Your task to perform on an android device: Is it going to rain this weekend? Image 0: 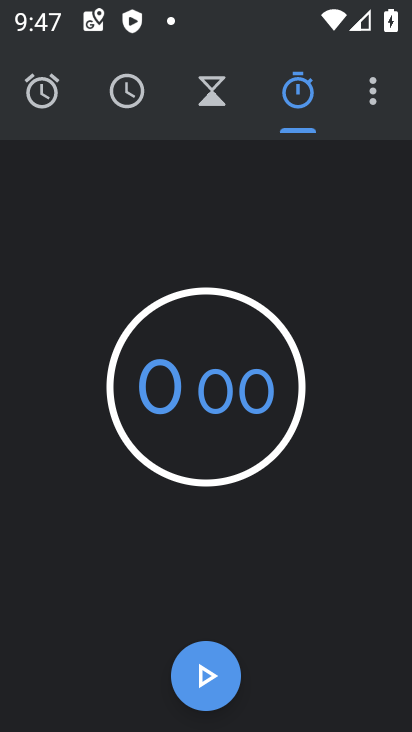
Step 0: press home button
Your task to perform on an android device: Is it going to rain this weekend? Image 1: 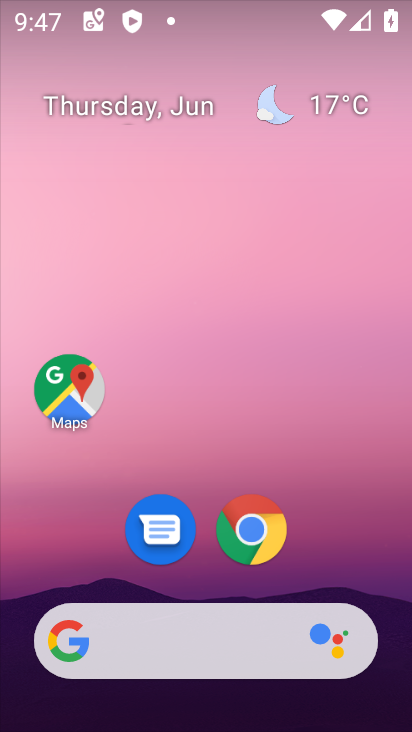
Step 1: click (325, 98)
Your task to perform on an android device: Is it going to rain this weekend? Image 2: 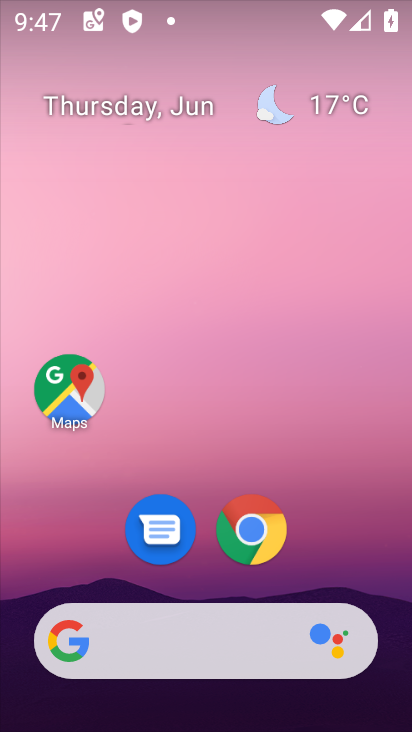
Step 2: click (329, 108)
Your task to perform on an android device: Is it going to rain this weekend? Image 3: 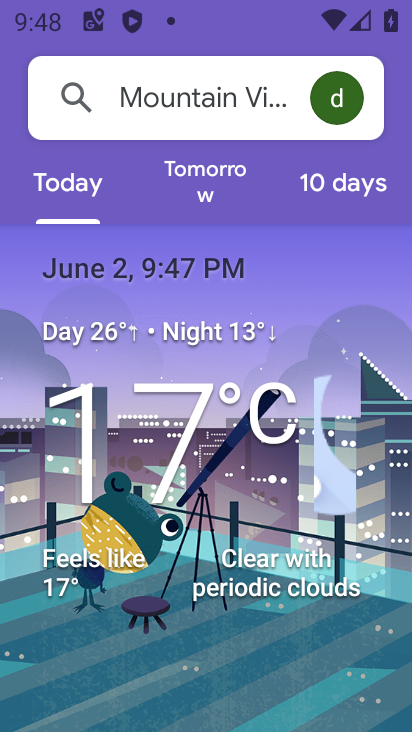
Step 3: click (346, 185)
Your task to perform on an android device: Is it going to rain this weekend? Image 4: 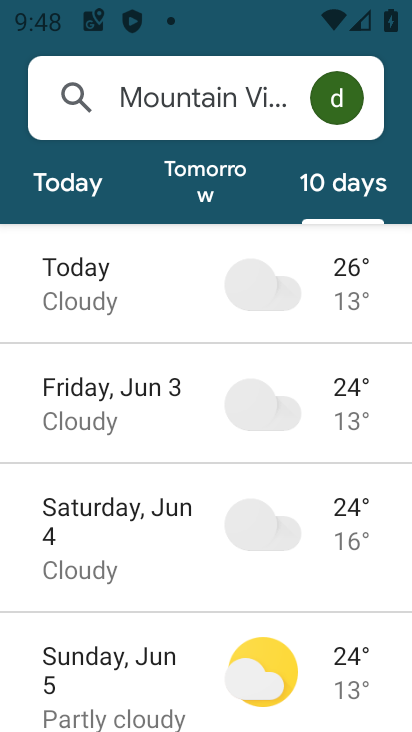
Step 4: task complete